Your task to perform on an android device: open wifi settings Image 0: 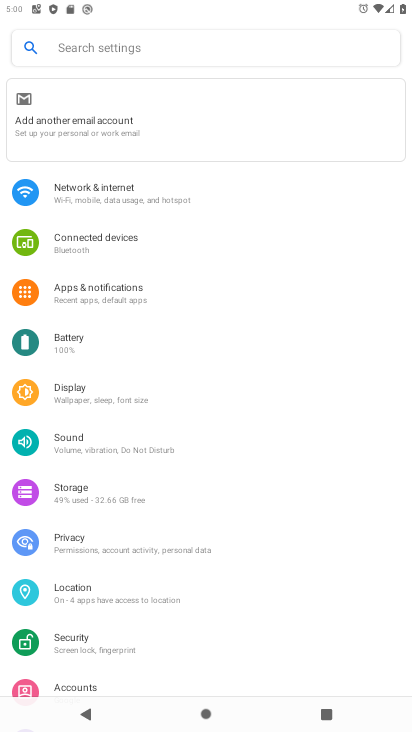
Step 0: click (93, 187)
Your task to perform on an android device: open wifi settings Image 1: 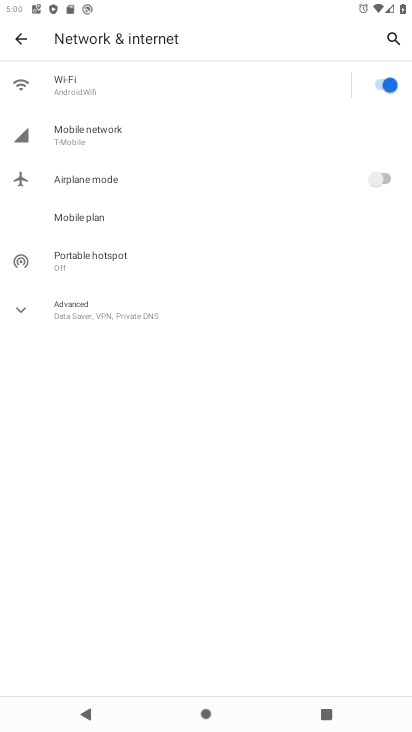
Step 1: click (100, 307)
Your task to perform on an android device: open wifi settings Image 2: 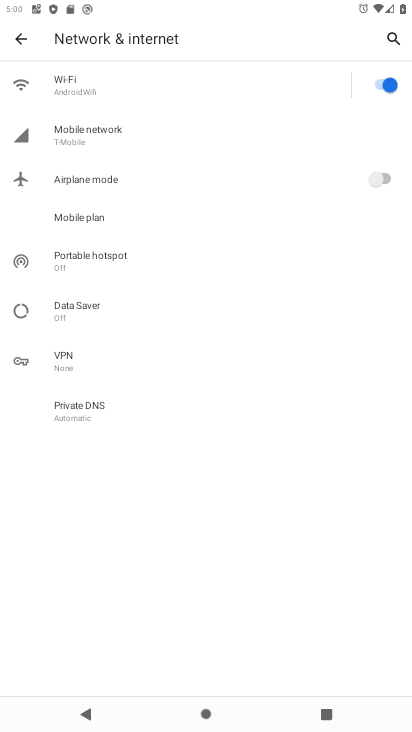
Step 2: click (99, 86)
Your task to perform on an android device: open wifi settings Image 3: 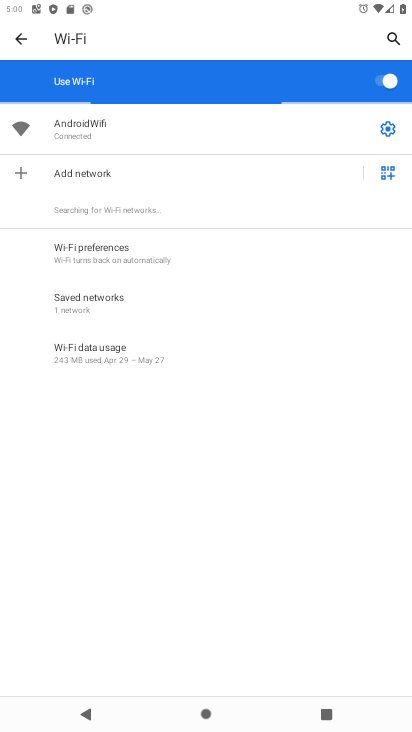
Step 3: click (393, 129)
Your task to perform on an android device: open wifi settings Image 4: 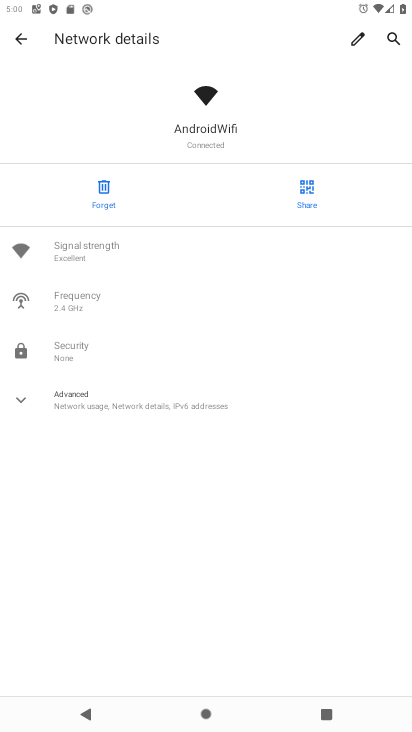
Step 4: click (115, 399)
Your task to perform on an android device: open wifi settings Image 5: 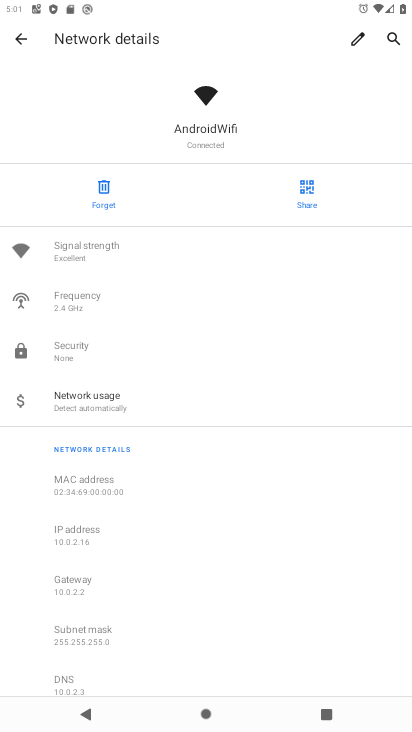
Step 5: task complete